Your task to perform on an android device: turn on improve location accuracy Image 0: 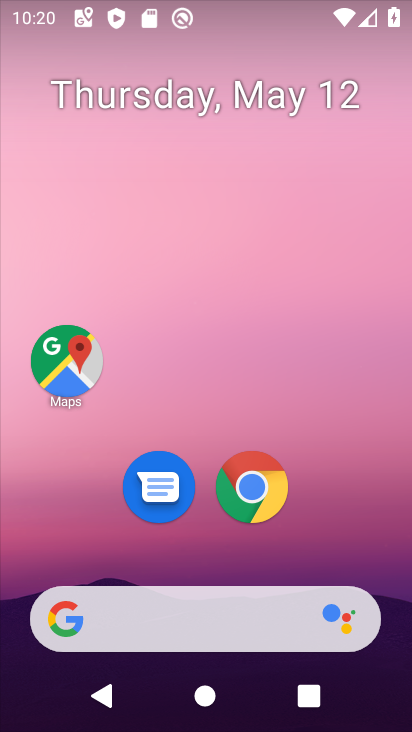
Step 0: press home button
Your task to perform on an android device: turn on improve location accuracy Image 1: 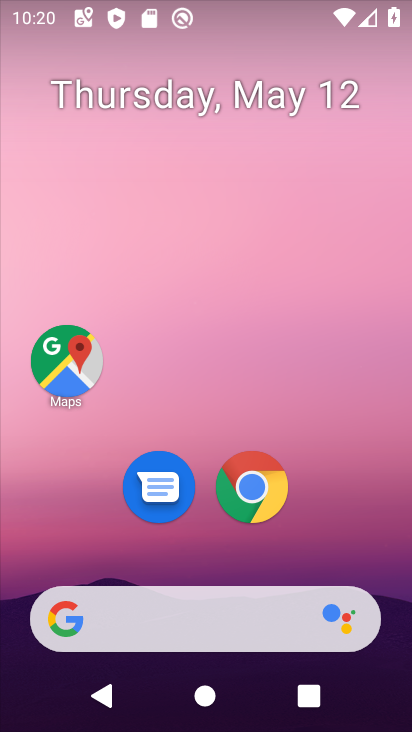
Step 1: drag from (38, 583) to (363, 144)
Your task to perform on an android device: turn on improve location accuracy Image 2: 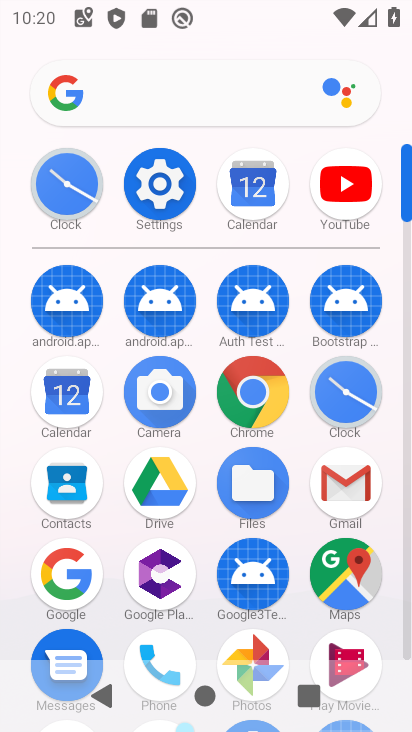
Step 2: click (159, 174)
Your task to perform on an android device: turn on improve location accuracy Image 3: 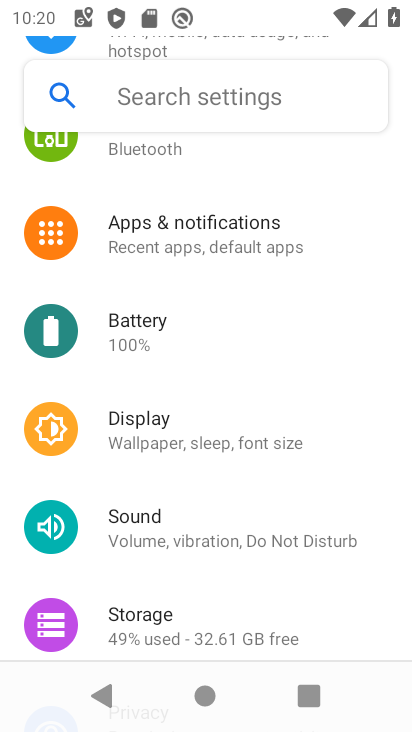
Step 3: drag from (66, 641) to (202, 294)
Your task to perform on an android device: turn on improve location accuracy Image 4: 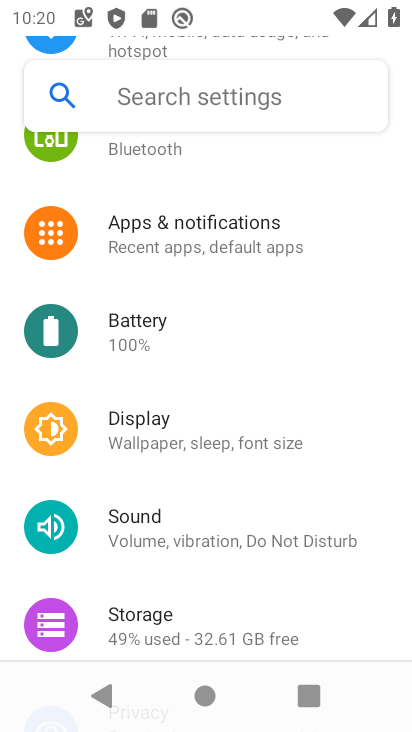
Step 4: drag from (32, 470) to (172, 257)
Your task to perform on an android device: turn on improve location accuracy Image 5: 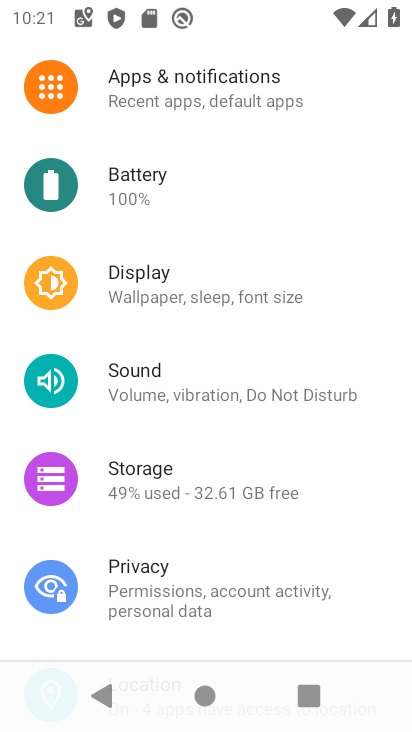
Step 5: drag from (20, 605) to (231, 269)
Your task to perform on an android device: turn on improve location accuracy Image 6: 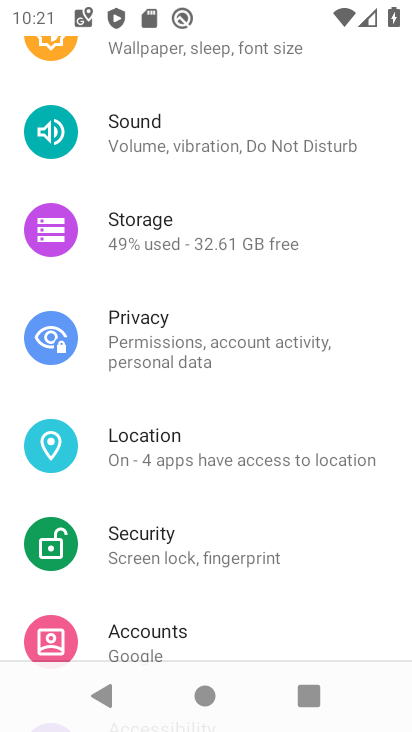
Step 6: click (87, 444)
Your task to perform on an android device: turn on improve location accuracy Image 7: 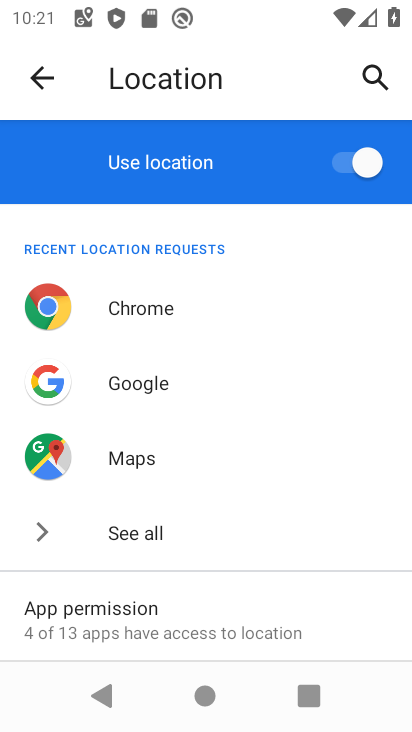
Step 7: drag from (93, 640) to (261, 317)
Your task to perform on an android device: turn on improve location accuracy Image 8: 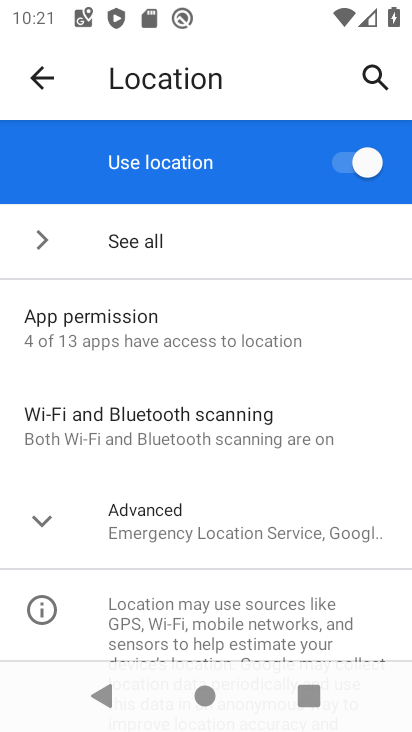
Step 8: click (154, 513)
Your task to perform on an android device: turn on improve location accuracy Image 9: 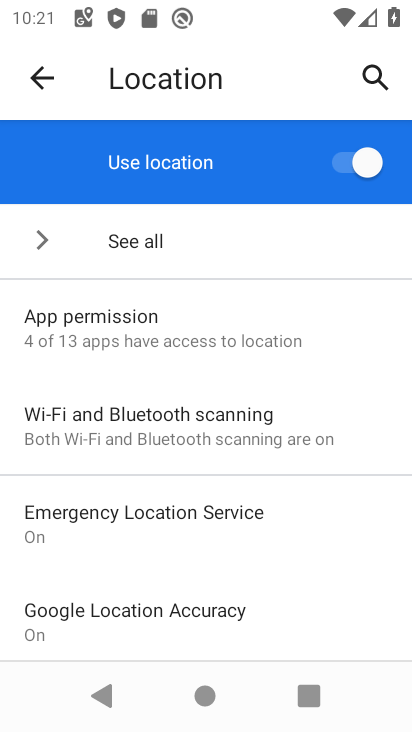
Step 9: drag from (193, 616) to (315, 308)
Your task to perform on an android device: turn on improve location accuracy Image 10: 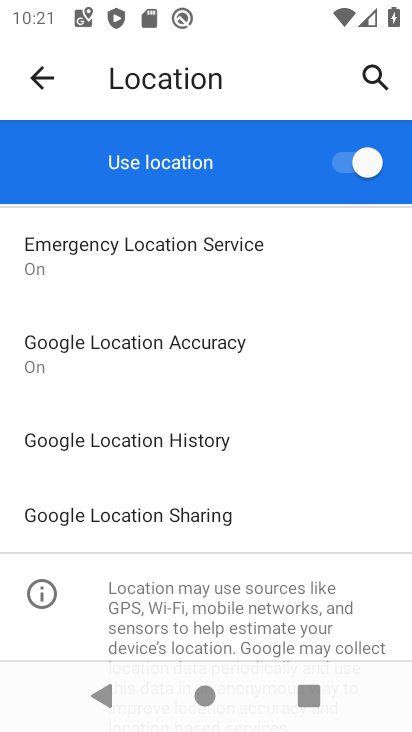
Step 10: click (217, 344)
Your task to perform on an android device: turn on improve location accuracy Image 11: 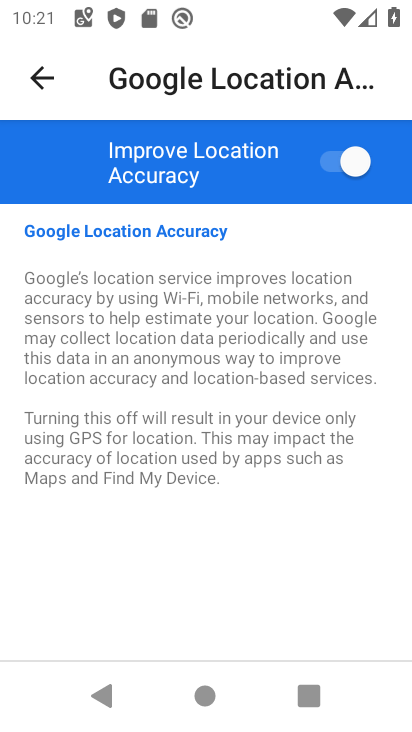
Step 11: task complete